Your task to perform on an android device: toggle data saver in the chrome app Image 0: 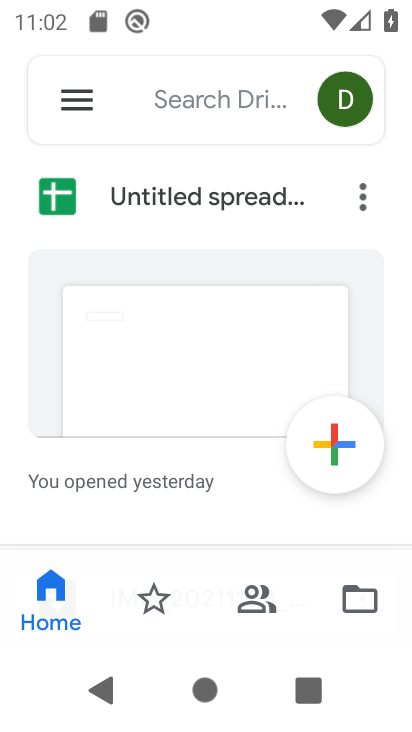
Step 0: press home button
Your task to perform on an android device: toggle data saver in the chrome app Image 1: 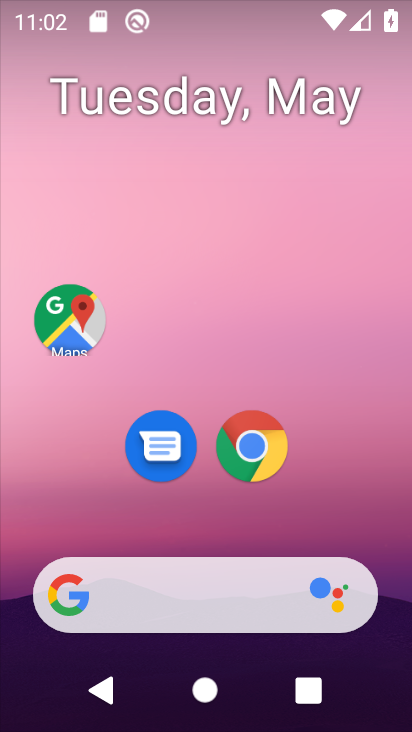
Step 1: click (252, 445)
Your task to perform on an android device: toggle data saver in the chrome app Image 2: 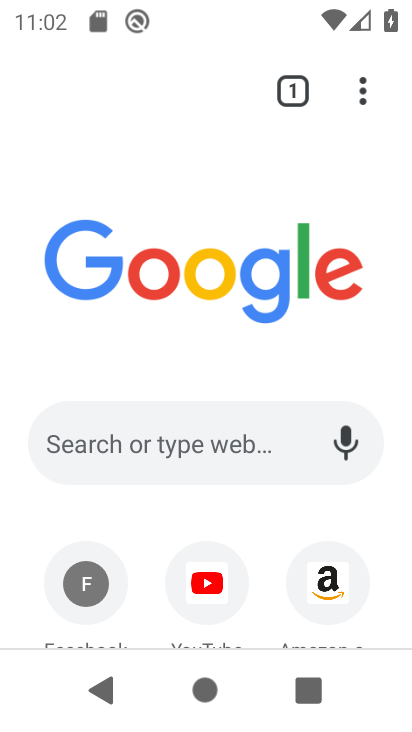
Step 2: click (365, 86)
Your task to perform on an android device: toggle data saver in the chrome app Image 3: 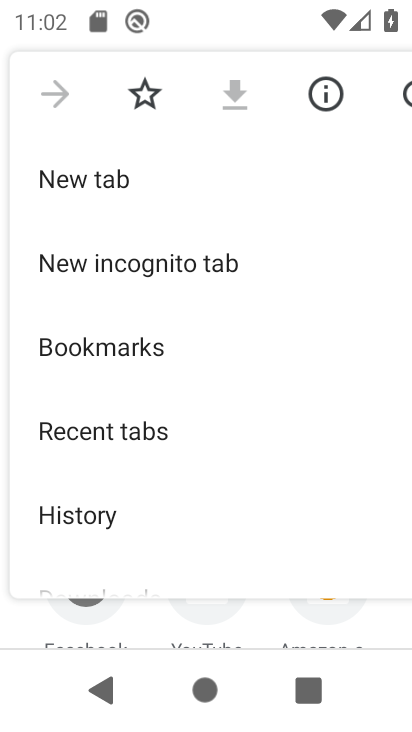
Step 3: drag from (115, 455) to (202, 349)
Your task to perform on an android device: toggle data saver in the chrome app Image 4: 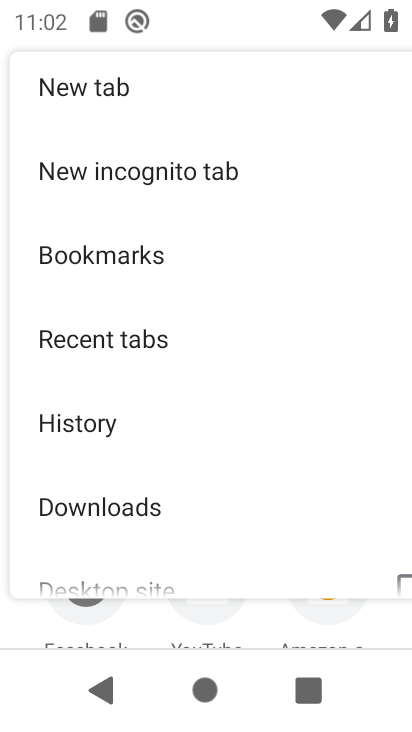
Step 4: drag from (112, 460) to (188, 372)
Your task to perform on an android device: toggle data saver in the chrome app Image 5: 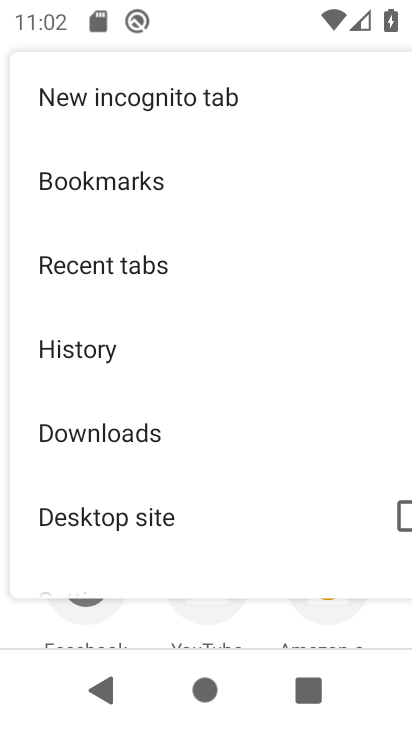
Step 5: drag from (116, 461) to (211, 355)
Your task to perform on an android device: toggle data saver in the chrome app Image 6: 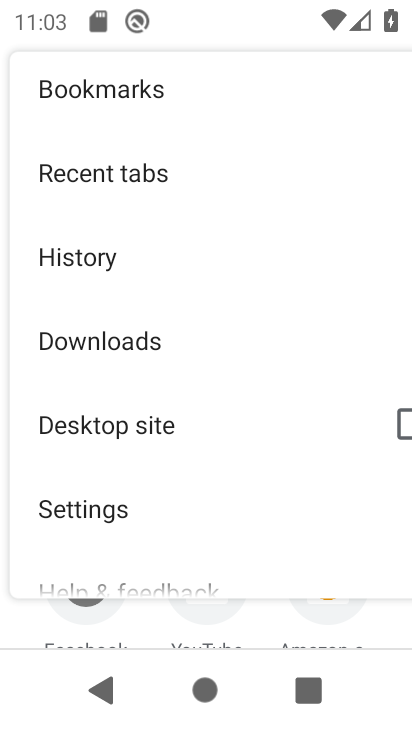
Step 6: drag from (116, 466) to (201, 376)
Your task to perform on an android device: toggle data saver in the chrome app Image 7: 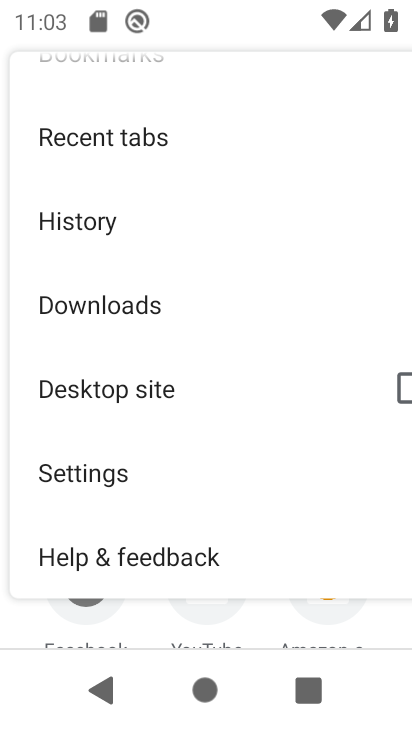
Step 7: click (96, 480)
Your task to perform on an android device: toggle data saver in the chrome app Image 8: 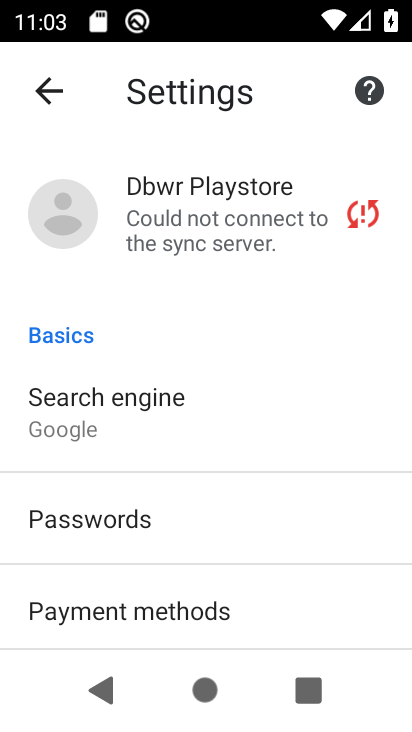
Step 8: drag from (116, 494) to (185, 399)
Your task to perform on an android device: toggle data saver in the chrome app Image 9: 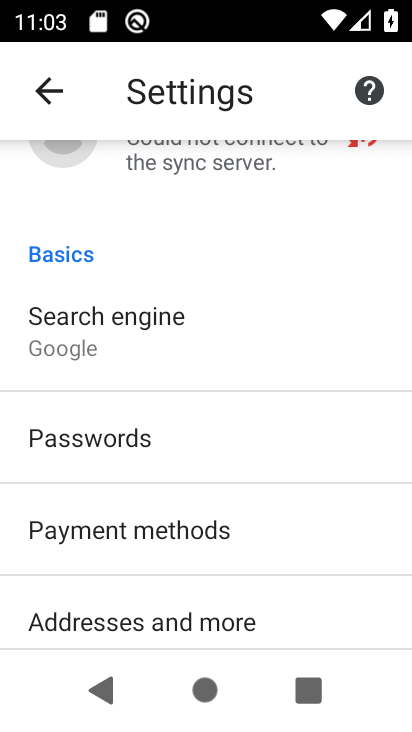
Step 9: drag from (98, 502) to (170, 412)
Your task to perform on an android device: toggle data saver in the chrome app Image 10: 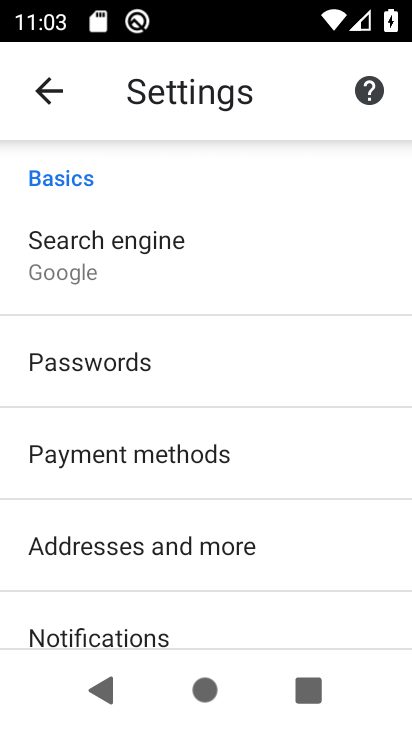
Step 10: drag from (79, 510) to (160, 400)
Your task to perform on an android device: toggle data saver in the chrome app Image 11: 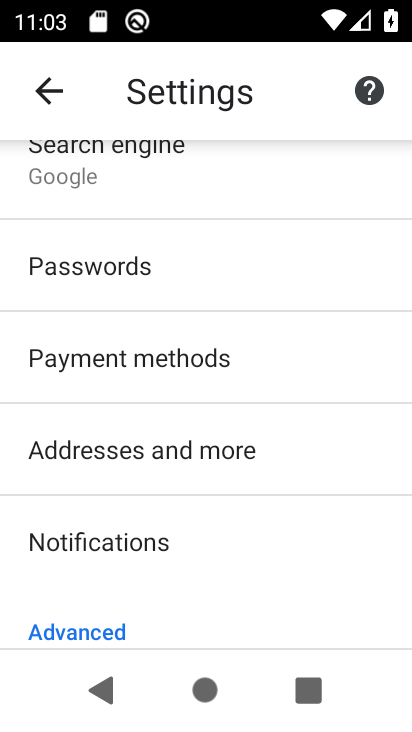
Step 11: drag from (86, 497) to (156, 405)
Your task to perform on an android device: toggle data saver in the chrome app Image 12: 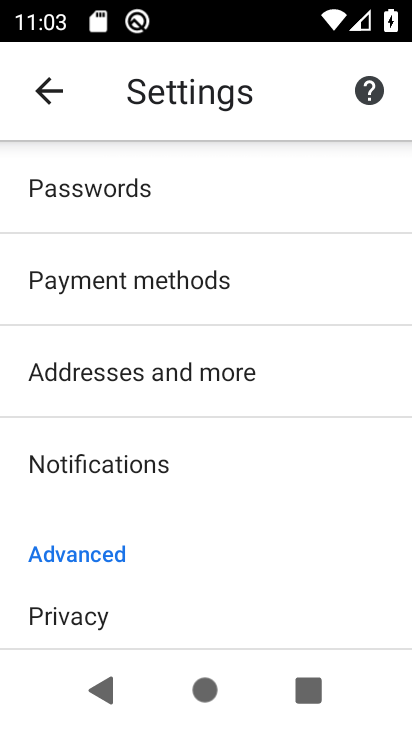
Step 12: drag from (83, 492) to (162, 384)
Your task to perform on an android device: toggle data saver in the chrome app Image 13: 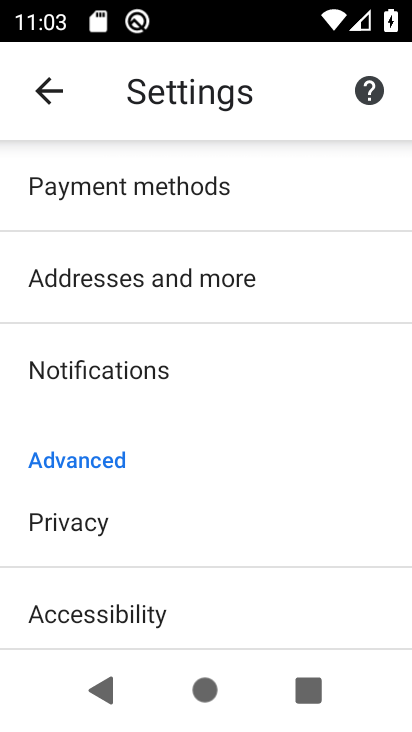
Step 13: drag from (90, 432) to (165, 327)
Your task to perform on an android device: toggle data saver in the chrome app Image 14: 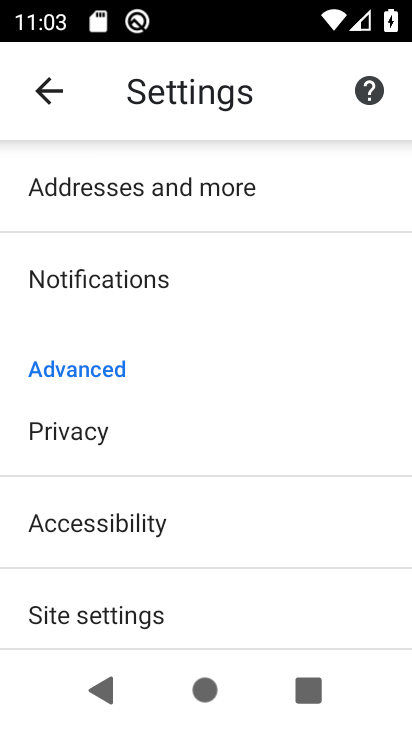
Step 14: drag from (88, 398) to (129, 320)
Your task to perform on an android device: toggle data saver in the chrome app Image 15: 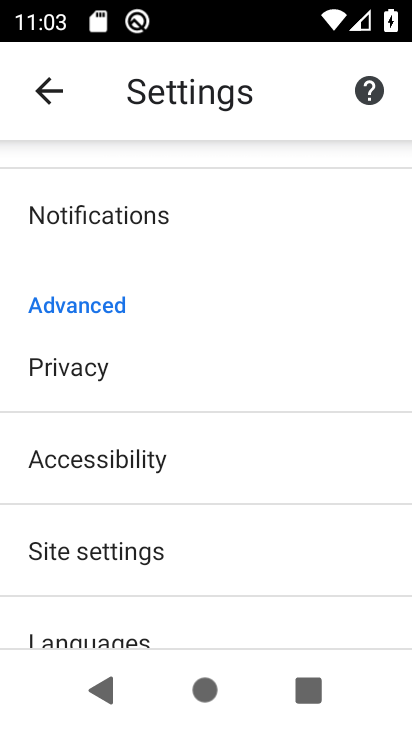
Step 15: drag from (75, 437) to (113, 350)
Your task to perform on an android device: toggle data saver in the chrome app Image 16: 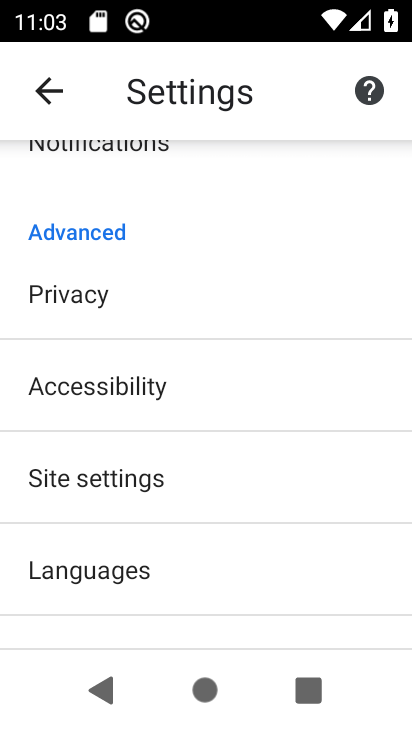
Step 16: drag from (59, 444) to (118, 362)
Your task to perform on an android device: toggle data saver in the chrome app Image 17: 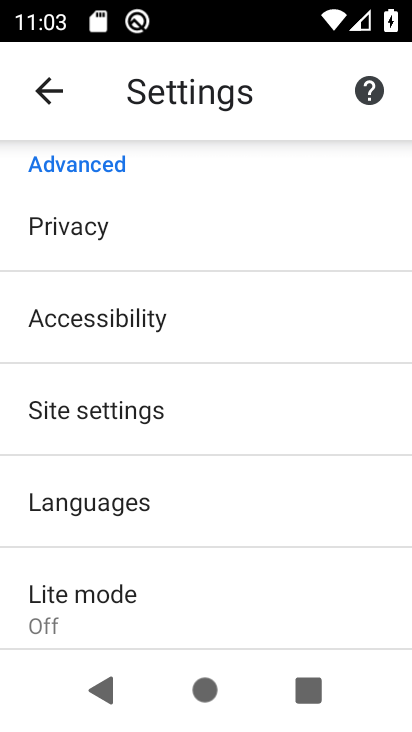
Step 17: drag from (97, 442) to (135, 387)
Your task to perform on an android device: toggle data saver in the chrome app Image 18: 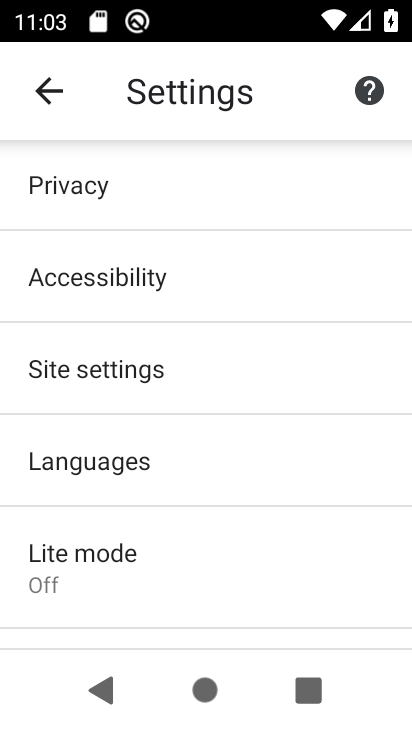
Step 18: click (83, 544)
Your task to perform on an android device: toggle data saver in the chrome app Image 19: 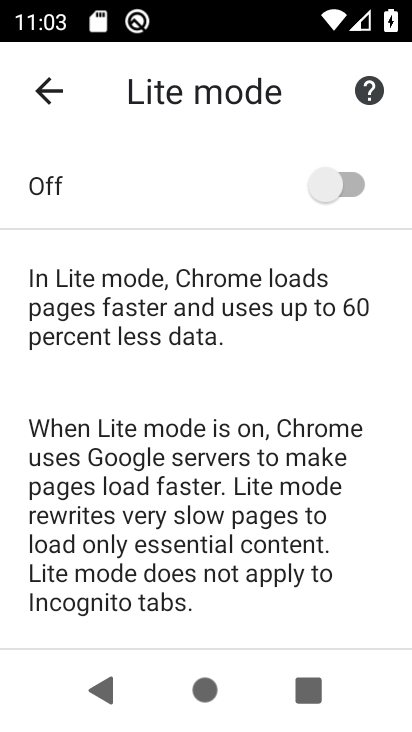
Step 19: click (319, 181)
Your task to perform on an android device: toggle data saver in the chrome app Image 20: 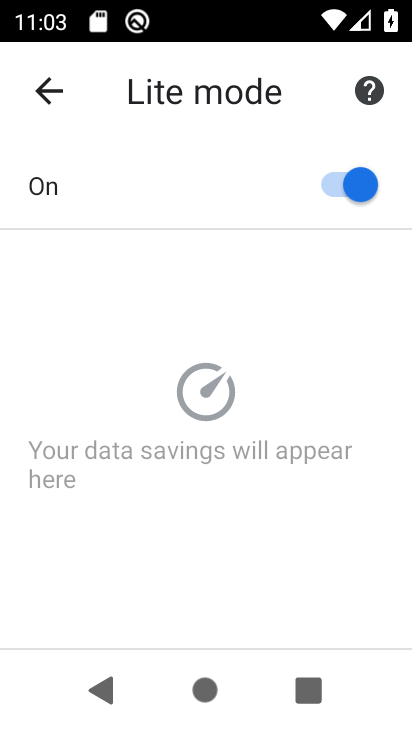
Step 20: task complete